Your task to perform on an android device: Search for usb-a on walmart.com, select the first entry, add it to the cart, then select checkout. Image 0: 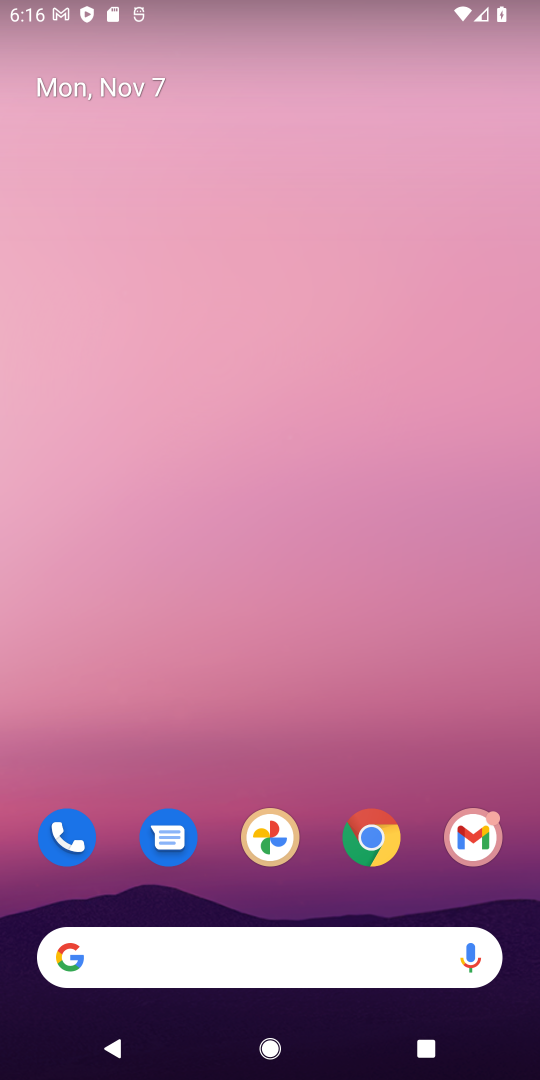
Step 0: click (373, 831)
Your task to perform on an android device: Search for usb-a on walmart.com, select the first entry, add it to the cart, then select checkout. Image 1: 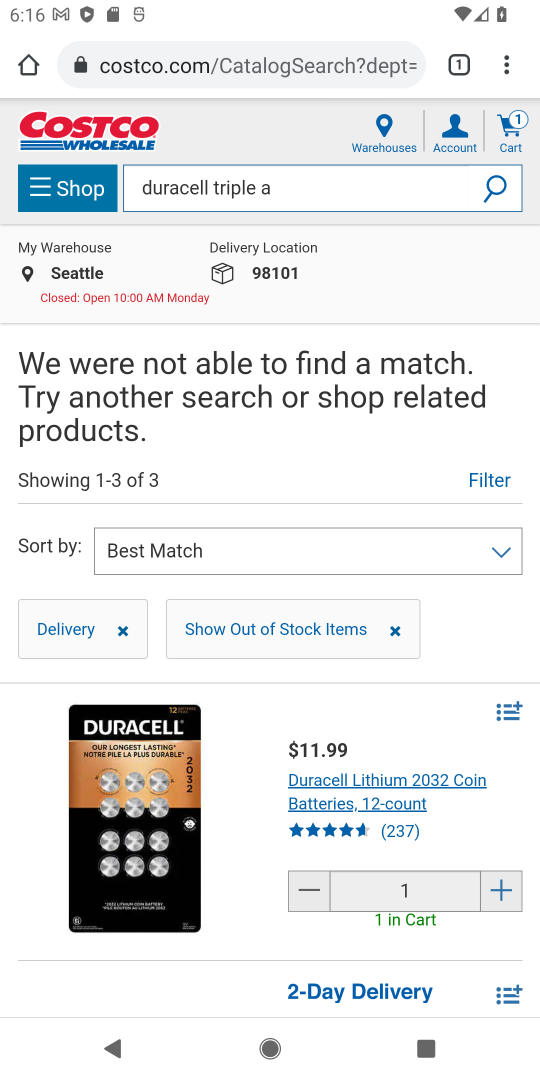
Step 1: click (246, 66)
Your task to perform on an android device: Search for usb-a on walmart.com, select the first entry, add it to the cart, then select checkout. Image 2: 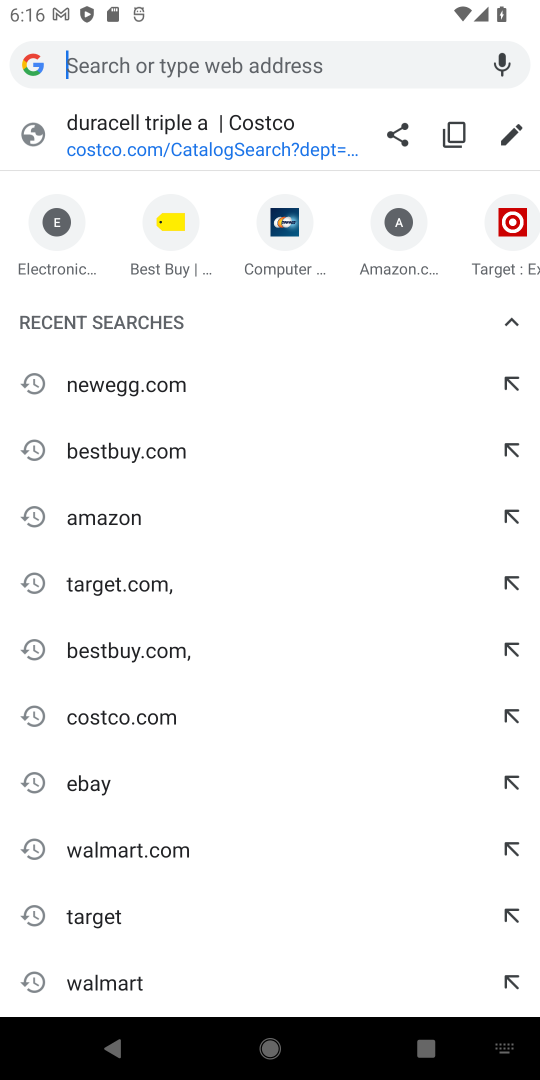
Step 2: type "walmart.com"
Your task to perform on an android device: Search for usb-a on walmart.com, select the first entry, add it to the cart, then select checkout. Image 3: 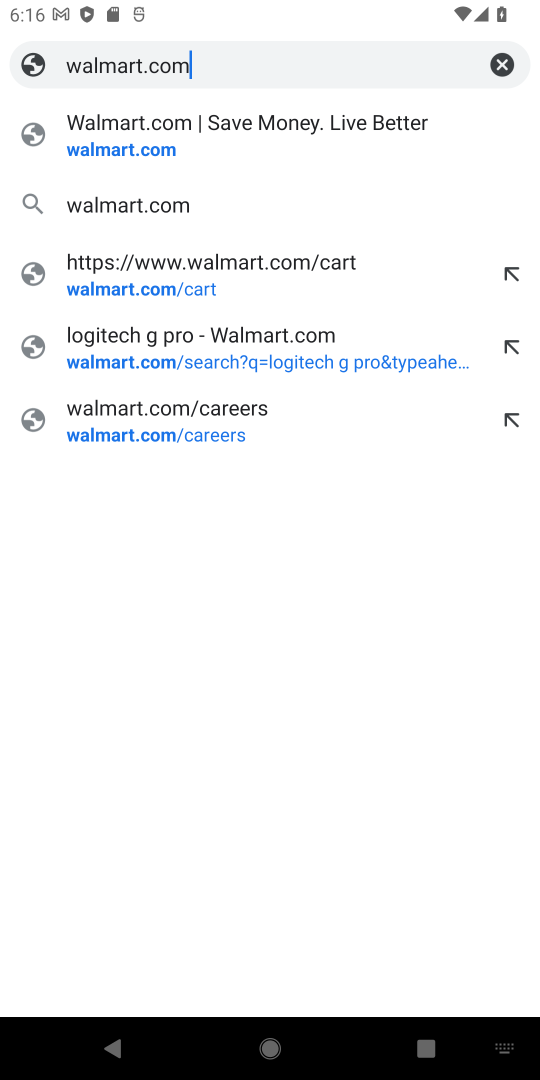
Step 3: click (362, 136)
Your task to perform on an android device: Search for usb-a on walmart.com, select the first entry, add it to the cart, then select checkout. Image 4: 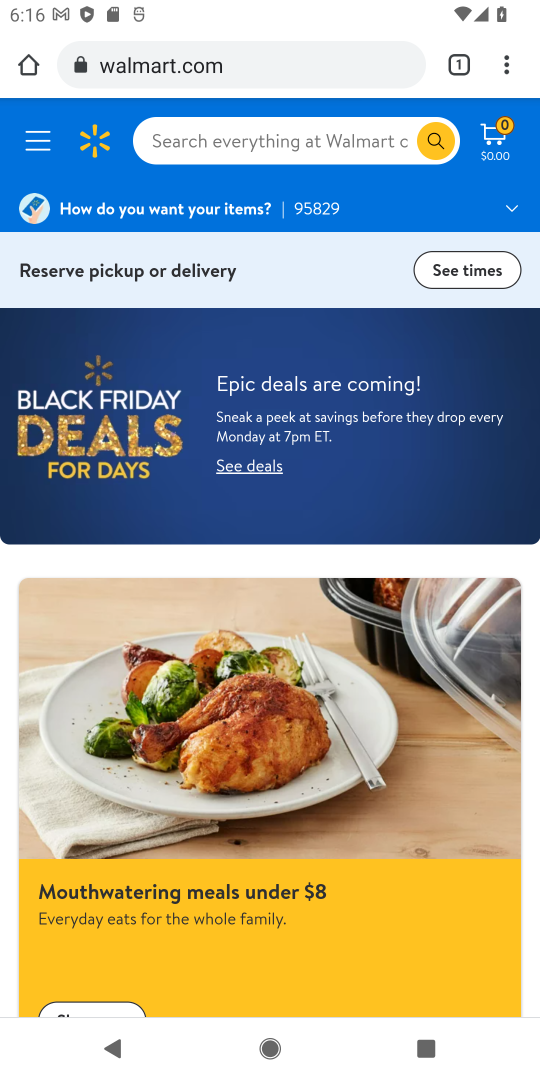
Step 4: click (291, 117)
Your task to perform on an android device: Search for usb-a on walmart.com, select the first entry, add it to the cart, then select checkout. Image 5: 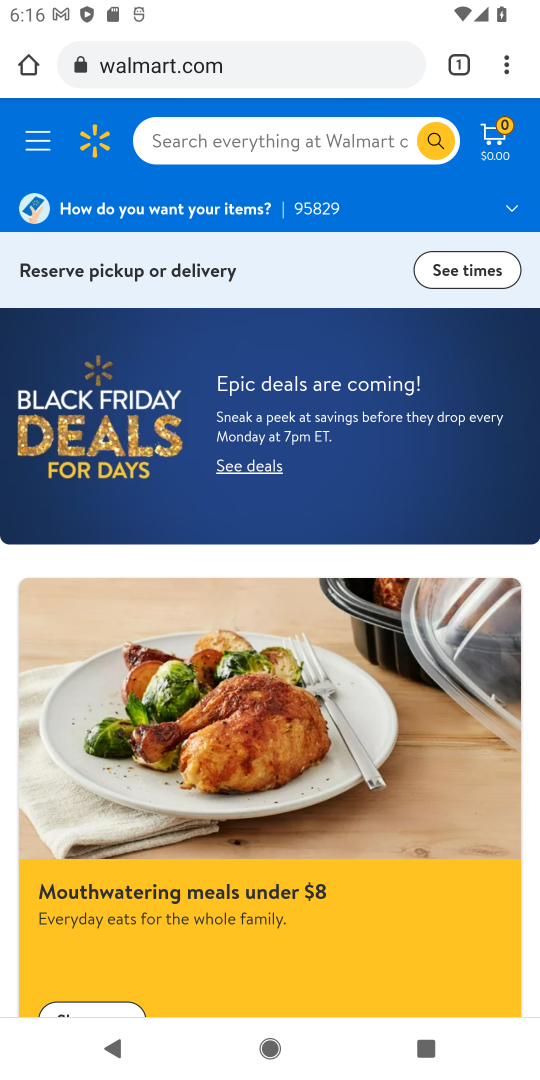
Step 5: click (289, 124)
Your task to perform on an android device: Search for usb-a on walmart.com, select the first entry, add it to the cart, then select checkout. Image 6: 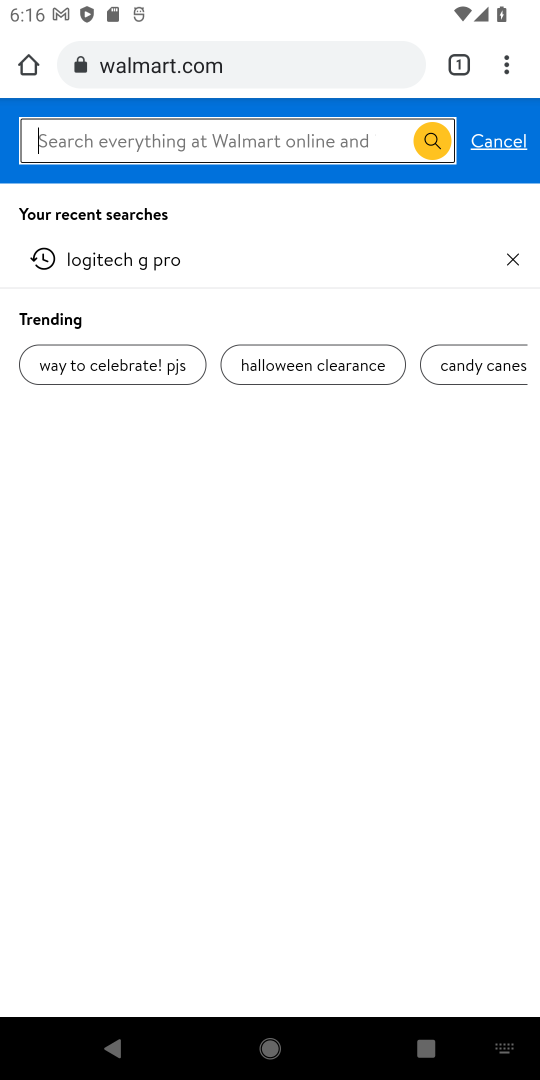
Step 6: type "usb-a"
Your task to perform on an android device: Search for usb-a on walmart.com, select the first entry, add it to the cart, then select checkout. Image 7: 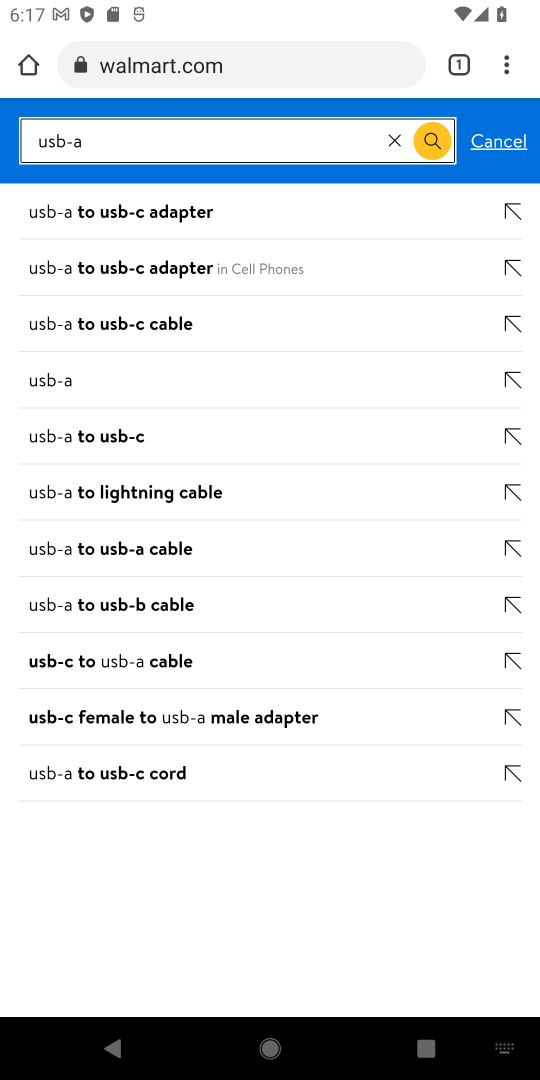
Step 7: click (95, 375)
Your task to perform on an android device: Search for usb-a on walmart.com, select the first entry, add it to the cart, then select checkout. Image 8: 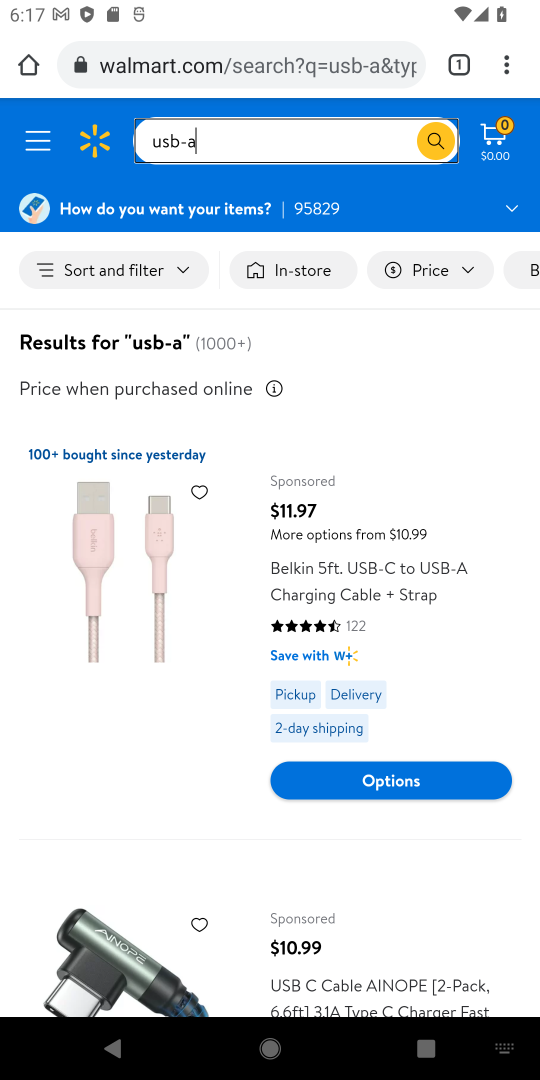
Step 8: click (155, 575)
Your task to perform on an android device: Search for usb-a on walmart.com, select the first entry, add it to the cart, then select checkout. Image 9: 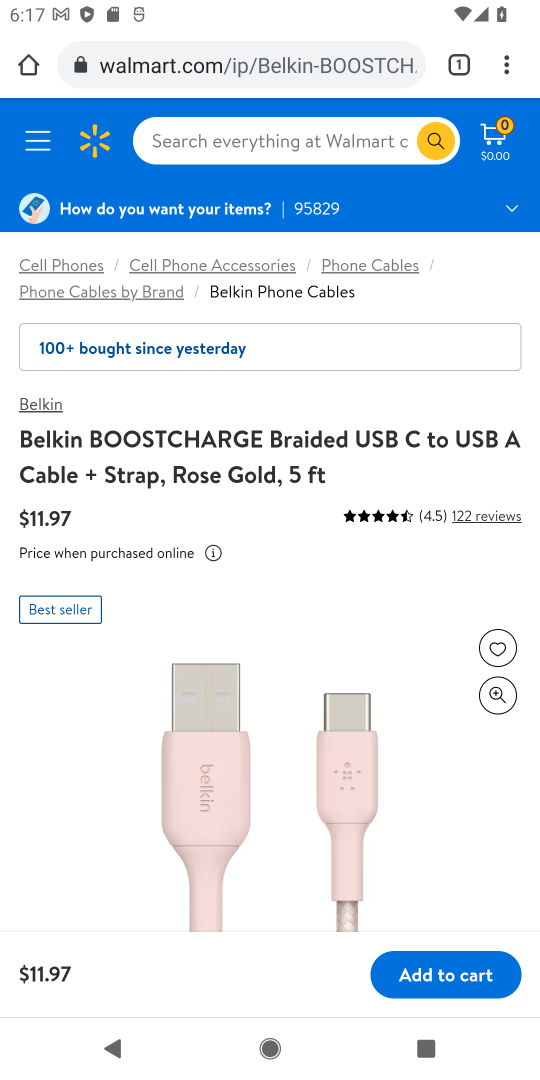
Step 9: click (445, 973)
Your task to perform on an android device: Search for usb-a on walmart.com, select the first entry, add it to the cart, then select checkout. Image 10: 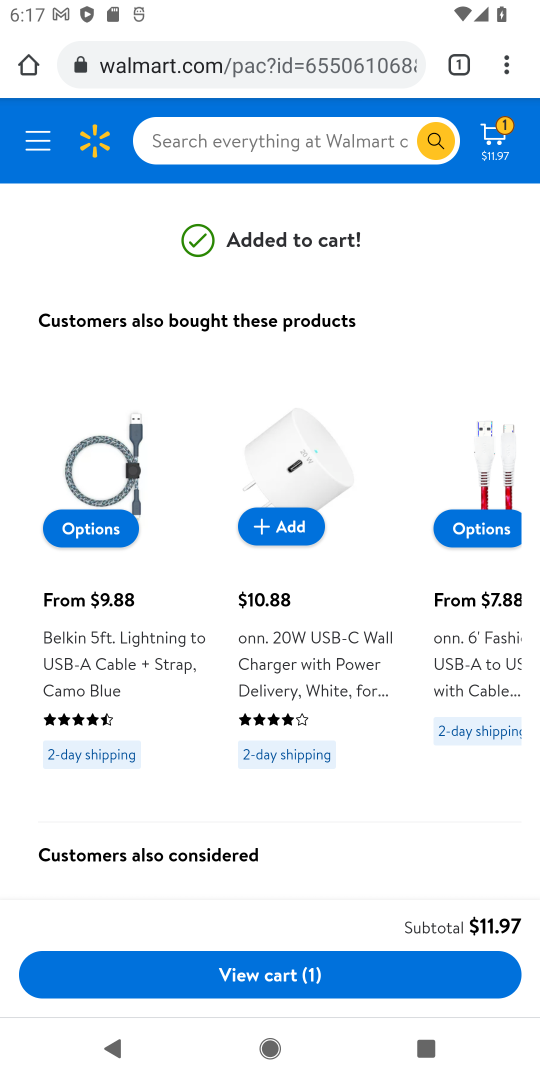
Step 10: click (492, 137)
Your task to perform on an android device: Search for usb-a on walmart.com, select the first entry, add it to the cart, then select checkout. Image 11: 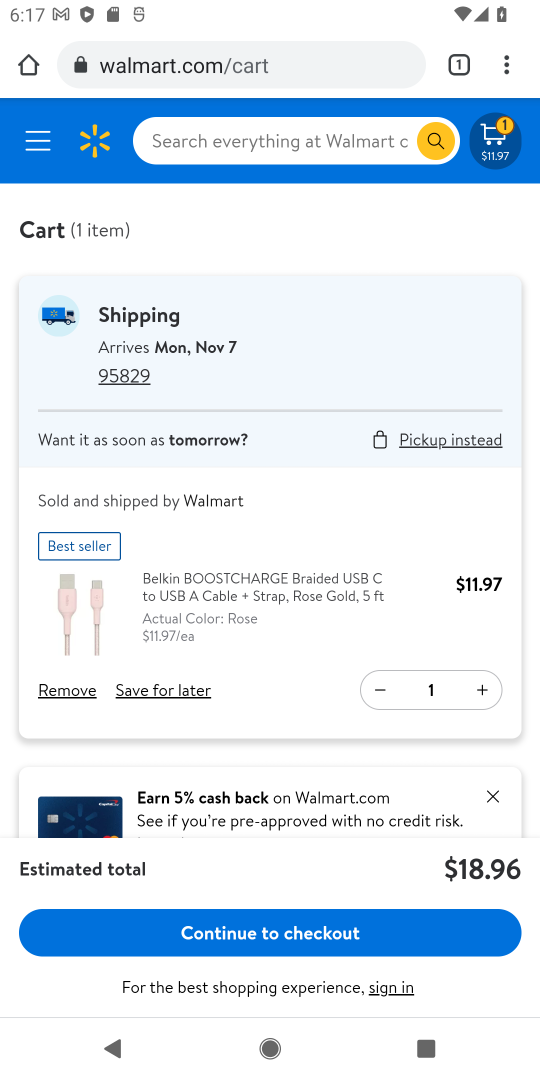
Step 11: click (317, 931)
Your task to perform on an android device: Search for usb-a on walmart.com, select the first entry, add it to the cart, then select checkout. Image 12: 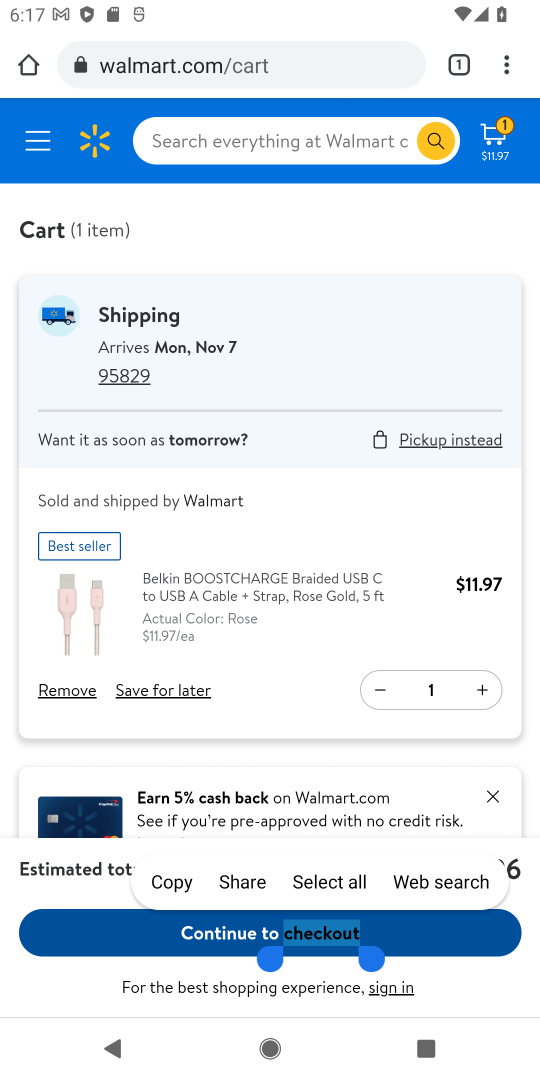
Step 12: click (210, 939)
Your task to perform on an android device: Search for usb-a on walmart.com, select the first entry, add it to the cart, then select checkout. Image 13: 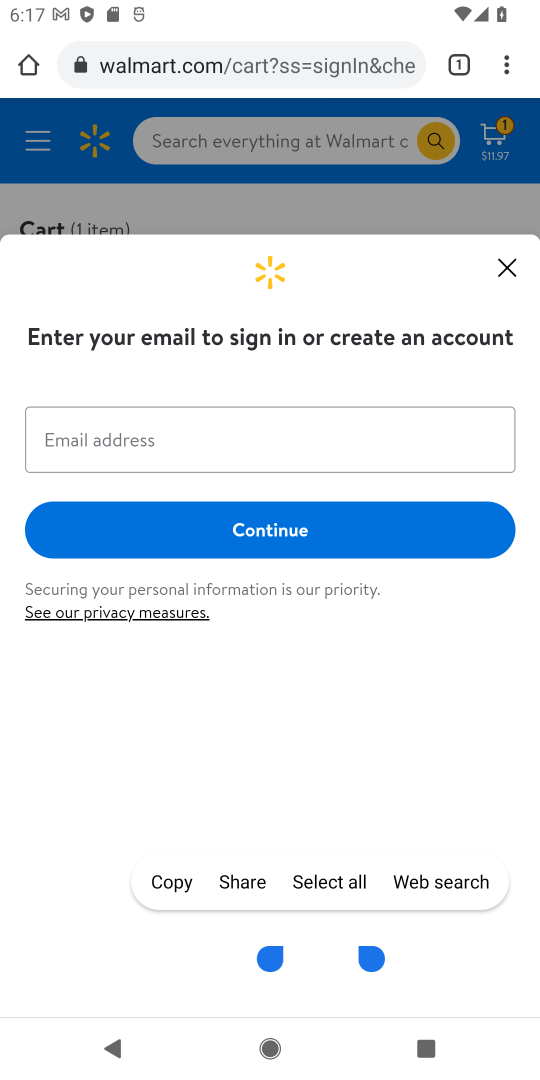
Step 13: task complete